Your task to perform on an android device: turn on sleep mode Image 0: 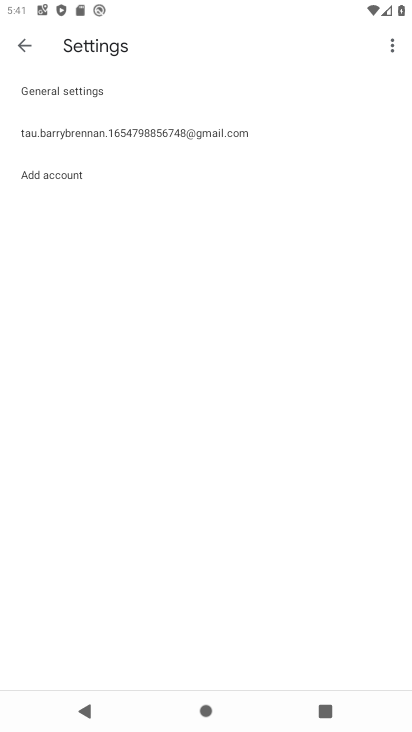
Step 0: click (22, 43)
Your task to perform on an android device: turn on sleep mode Image 1: 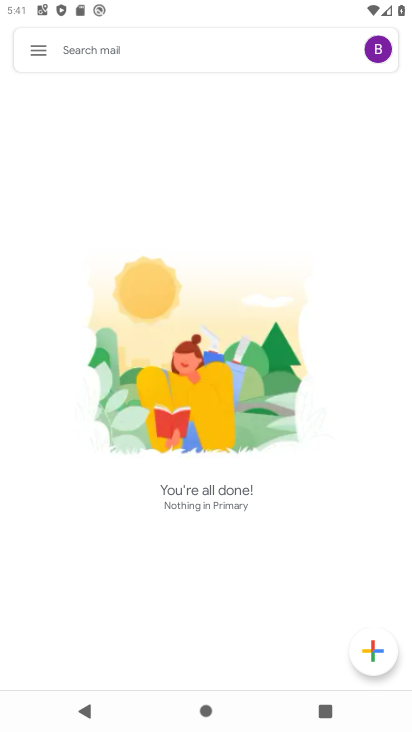
Step 1: press back button
Your task to perform on an android device: turn on sleep mode Image 2: 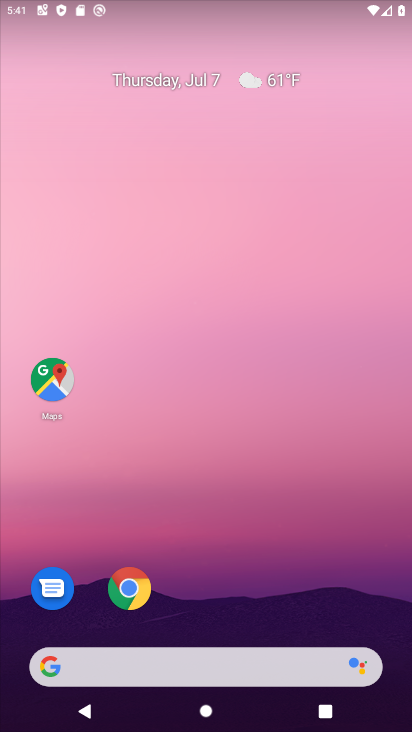
Step 2: drag from (228, 562) to (266, 24)
Your task to perform on an android device: turn on sleep mode Image 3: 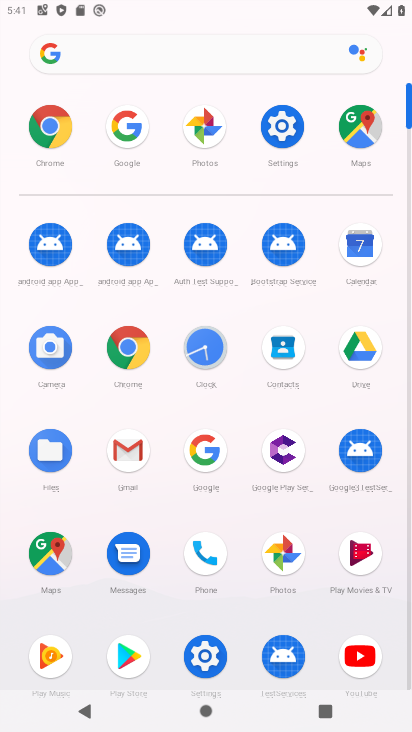
Step 3: click (274, 135)
Your task to perform on an android device: turn on sleep mode Image 4: 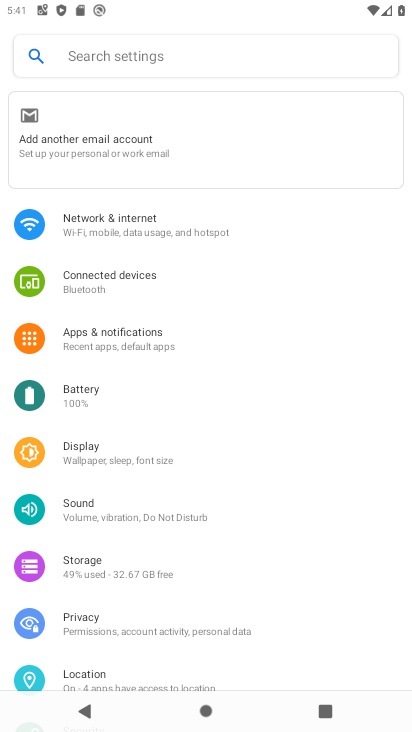
Step 4: click (124, 52)
Your task to perform on an android device: turn on sleep mode Image 5: 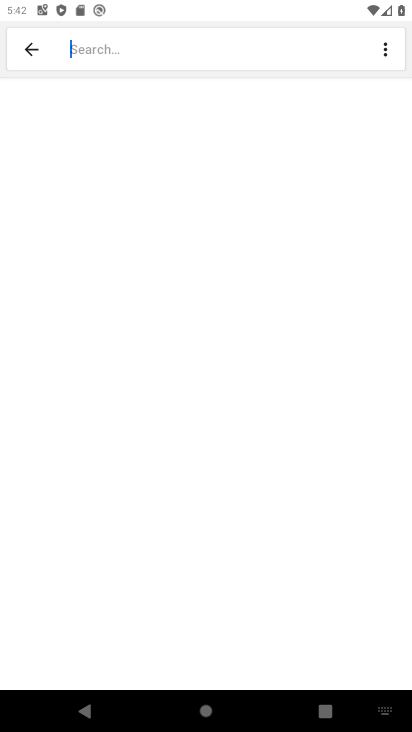
Step 5: type "sleep mode"
Your task to perform on an android device: turn on sleep mode Image 6: 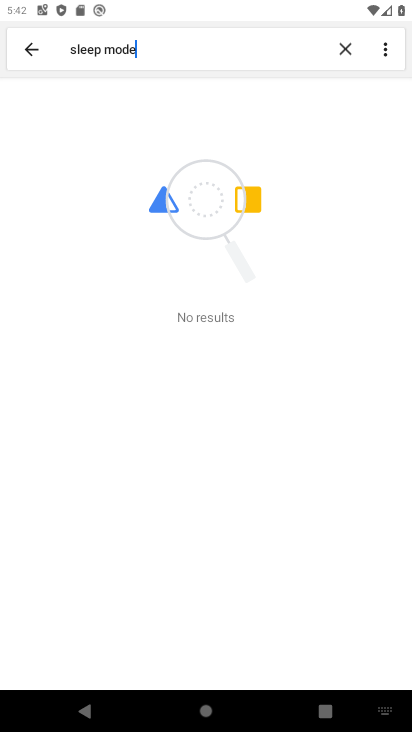
Step 6: task complete